Your task to perform on an android device: turn on data saver in the chrome app Image 0: 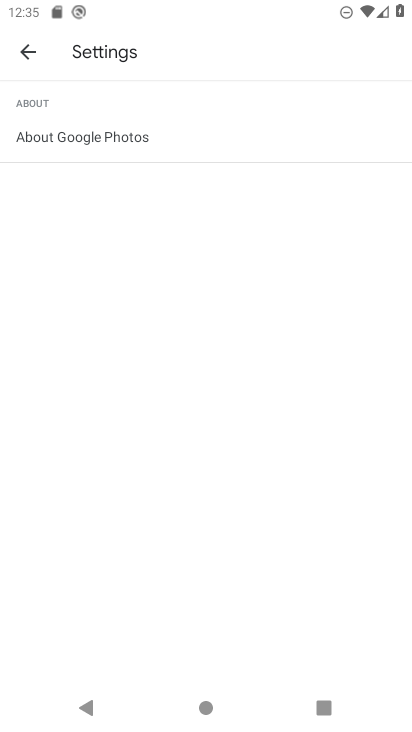
Step 0: press home button
Your task to perform on an android device: turn on data saver in the chrome app Image 1: 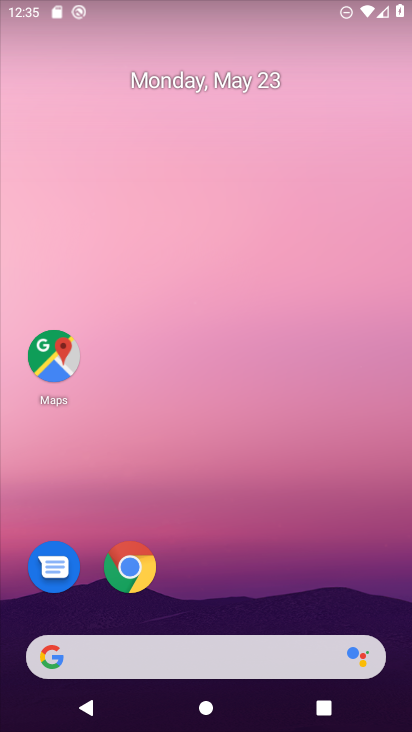
Step 1: click (152, 581)
Your task to perform on an android device: turn on data saver in the chrome app Image 2: 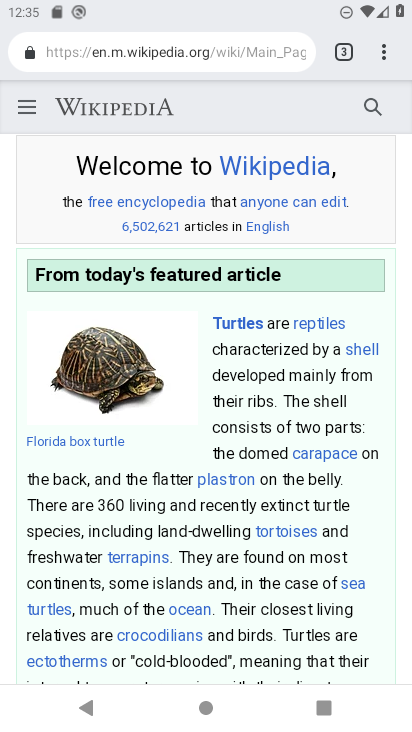
Step 2: click (379, 61)
Your task to perform on an android device: turn on data saver in the chrome app Image 3: 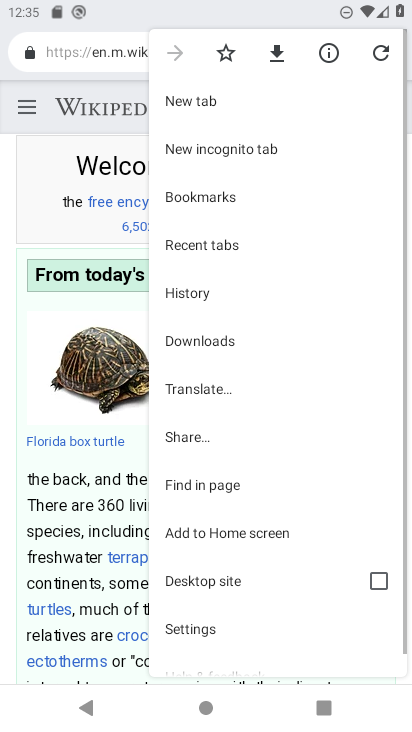
Step 3: drag from (217, 557) to (246, 360)
Your task to perform on an android device: turn on data saver in the chrome app Image 4: 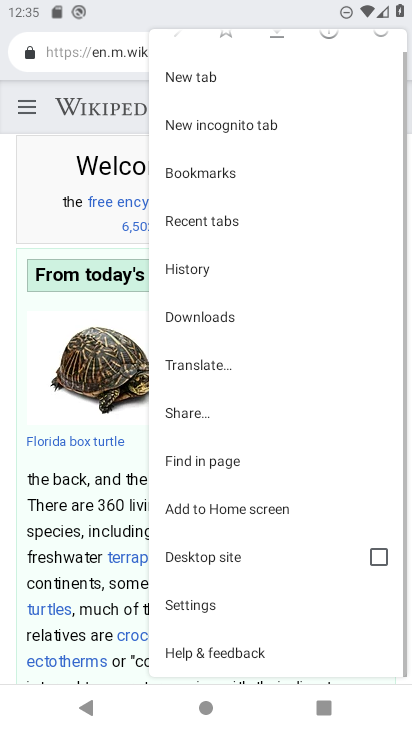
Step 4: click (202, 613)
Your task to perform on an android device: turn on data saver in the chrome app Image 5: 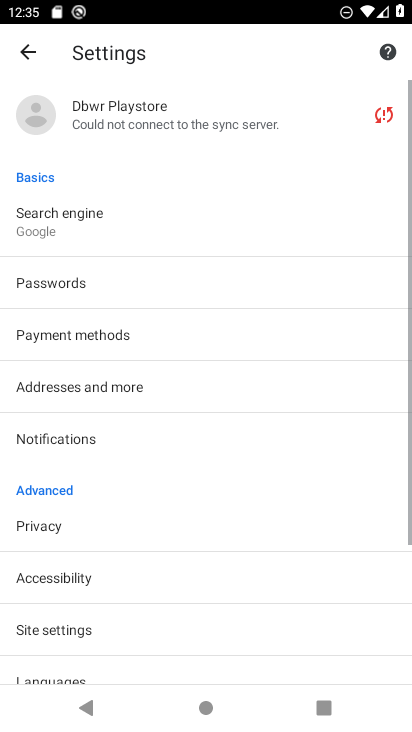
Step 5: drag from (196, 613) to (215, 365)
Your task to perform on an android device: turn on data saver in the chrome app Image 6: 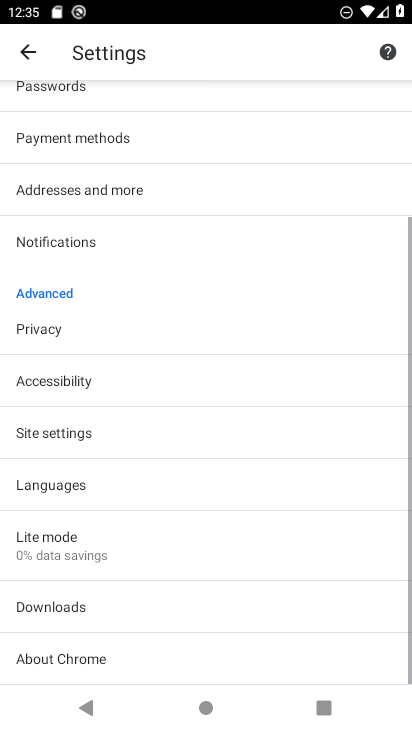
Step 6: click (84, 545)
Your task to perform on an android device: turn on data saver in the chrome app Image 7: 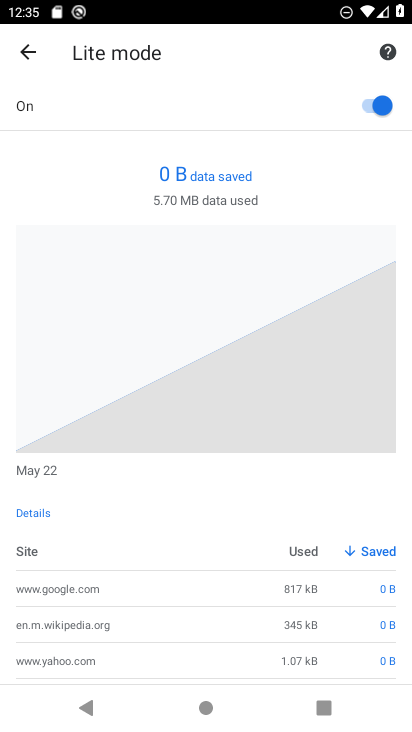
Step 7: task complete